Your task to perform on an android device: turn off wifi Image 0: 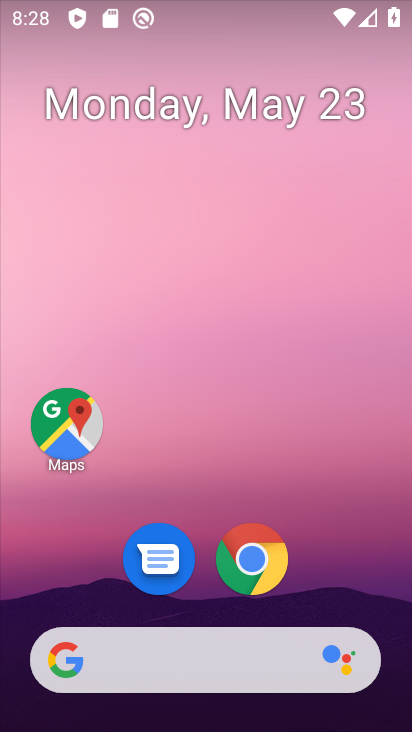
Step 0: drag from (343, 590) to (279, 15)
Your task to perform on an android device: turn off wifi Image 1: 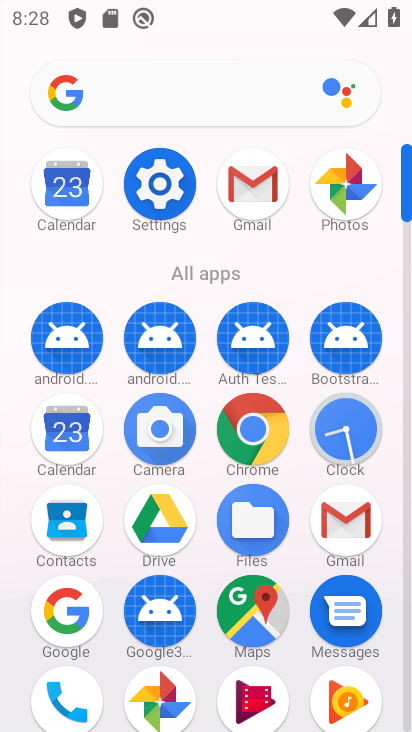
Step 1: click (159, 181)
Your task to perform on an android device: turn off wifi Image 2: 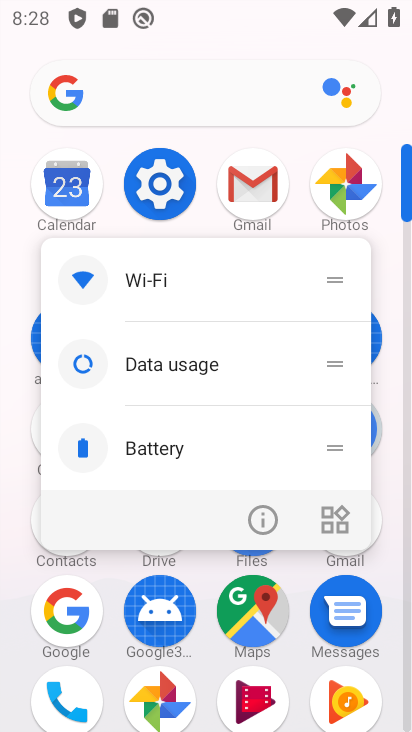
Step 2: click (155, 181)
Your task to perform on an android device: turn off wifi Image 3: 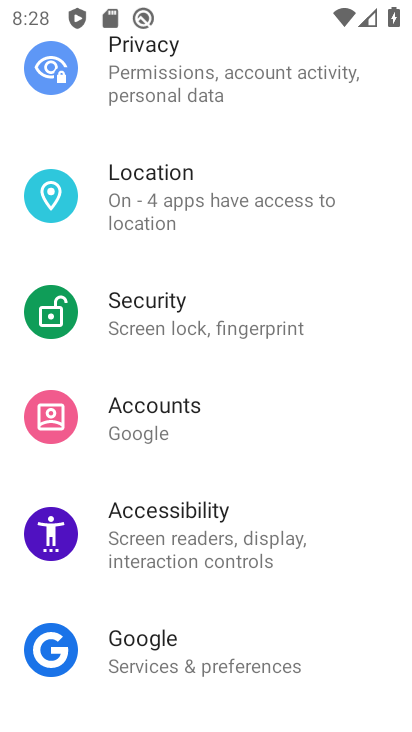
Step 3: drag from (137, 202) to (124, 498)
Your task to perform on an android device: turn off wifi Image 4: 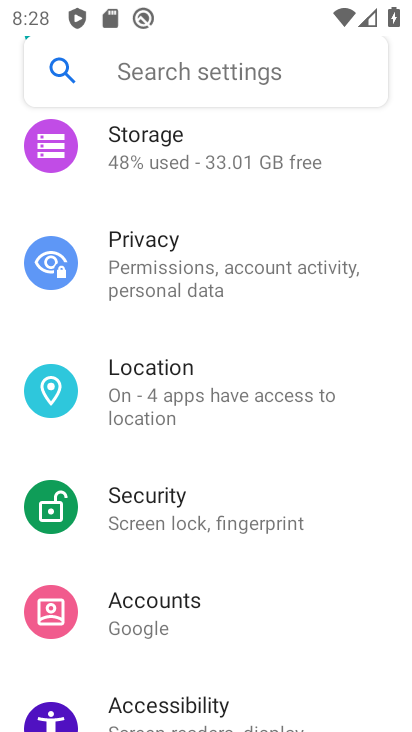
Step 4: drag from (121, 308) to (180, 489)
Your task to perform on an android device: turn off wifi Image 5: 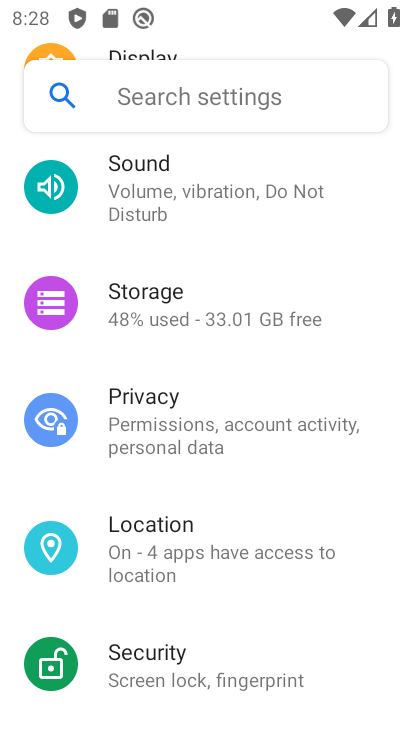
Step 5: drag from (195, 191) to (272, 542)
Your task to perform on an android device: turn off wifi Image 6: 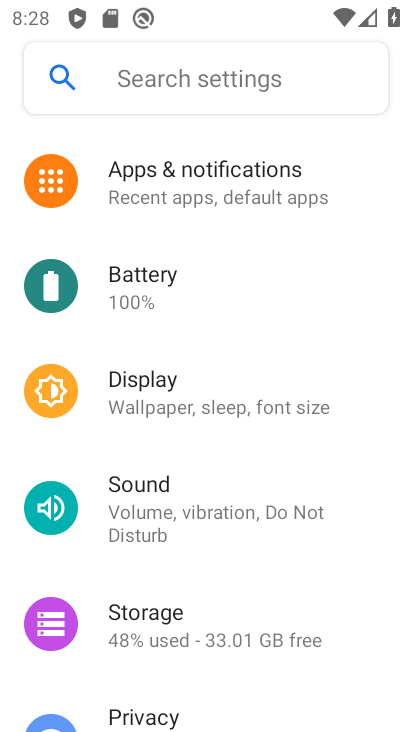
Step 6: drag from (183, 223) to (213, 551)
Your task to perform on an android device: turn off wifi Image 7: 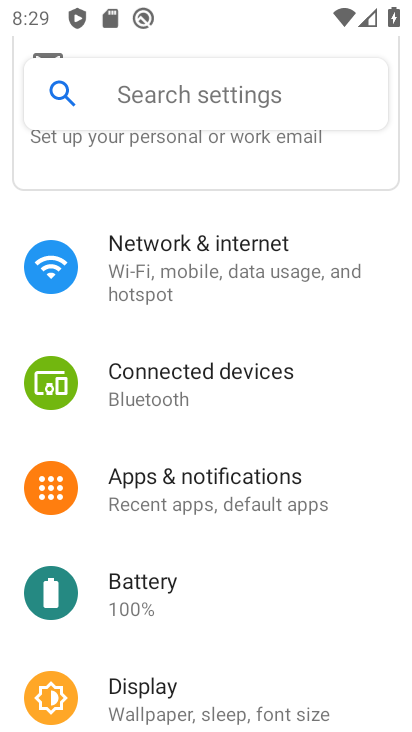
Step 7: click (253, 278)
Your task to perform on an android device: turn off wifi Image 8: 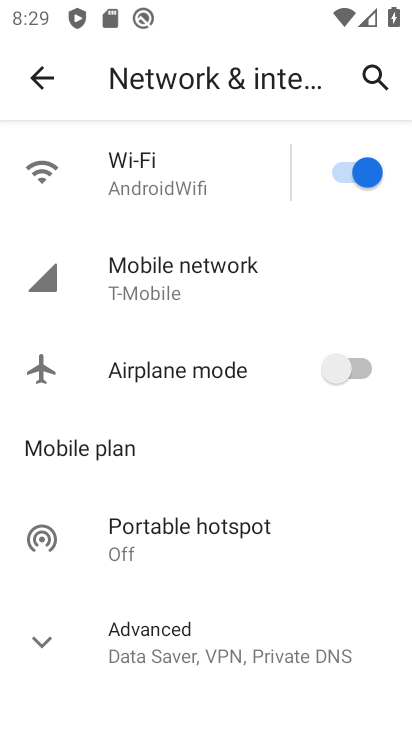
Step 8: click (326, 187)
Your task to perform on an android device: turn off wifi Image 9: 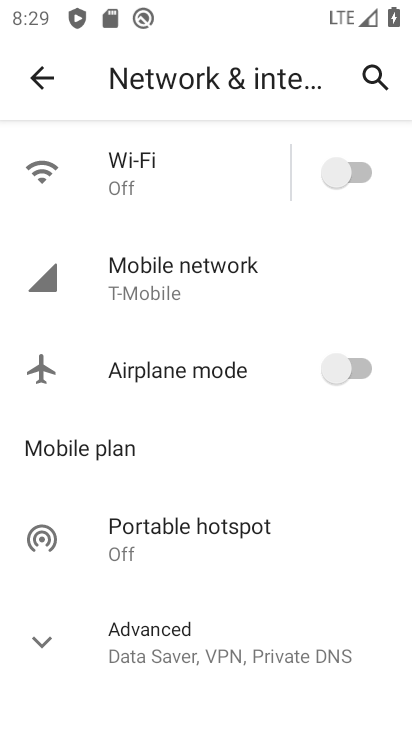
Step 9: task complete